Your task to perform on an android device: Search for seafood restaurants on Google Maps Image 0: 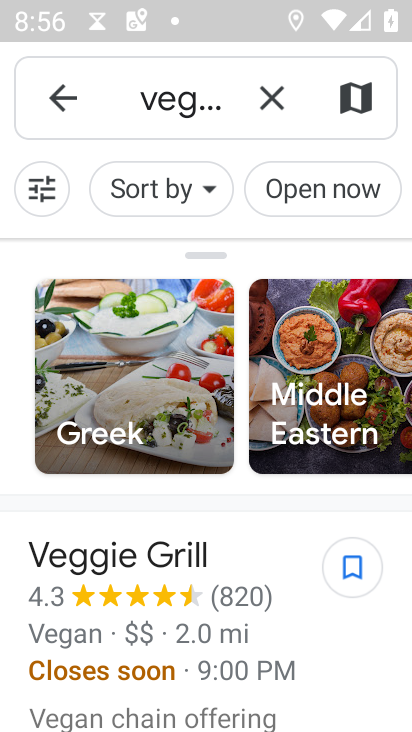
Step 0: task complete